Your task to perform on an android device: change notification settings in the gmail app Image 0: 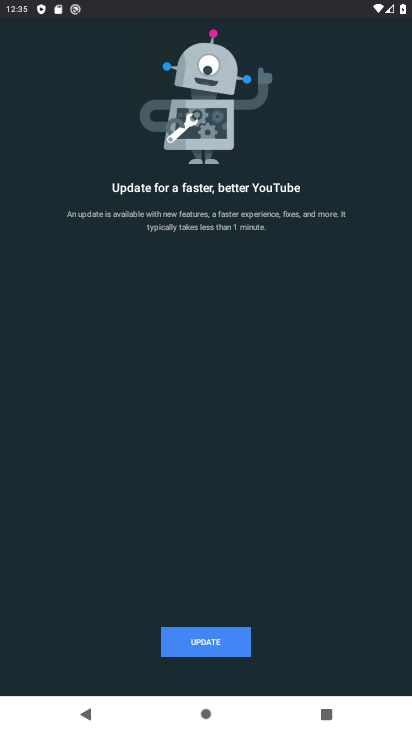
Step 0: press home button
Your task to perform on an android device: change notification settings in the gmail app Image 1: 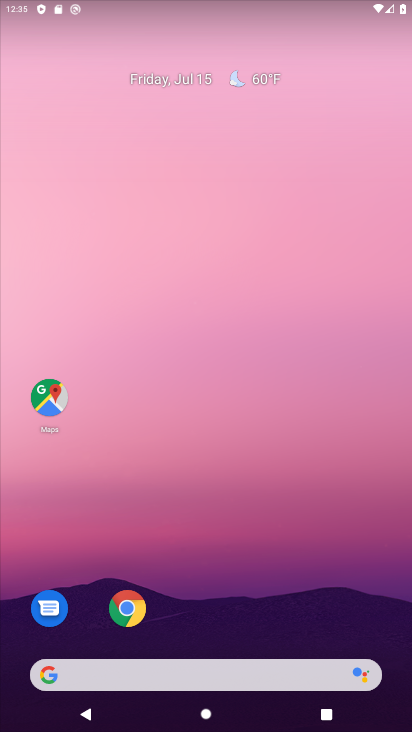
Step 1: drag from (252, 629) to (183, 67)
Your task to perform on an android device: change notification settings in the gmail app Image 2: 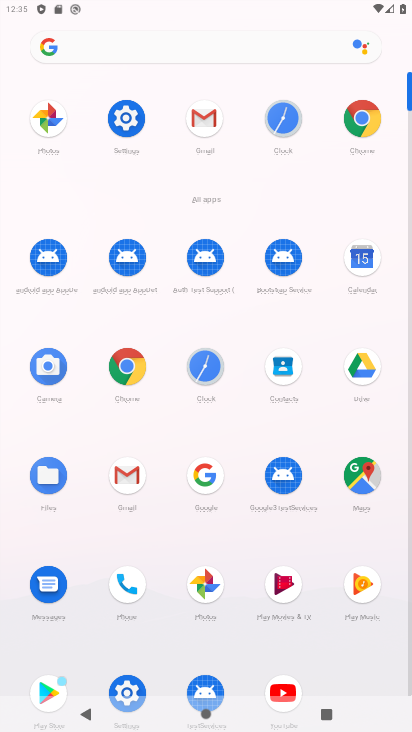
Step 2: click (134, 475)
Your task to perform on an android device: change notification settings in the gmail app Image 3: 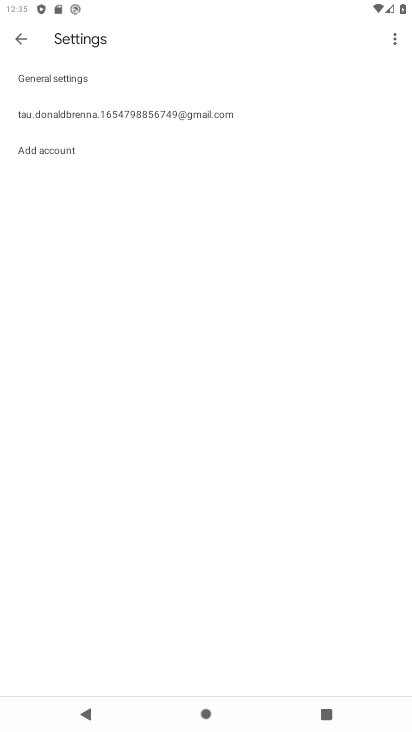
Step 3: press home button
Your task to perform on an android device: change notification settings in the gmail app Image 4: 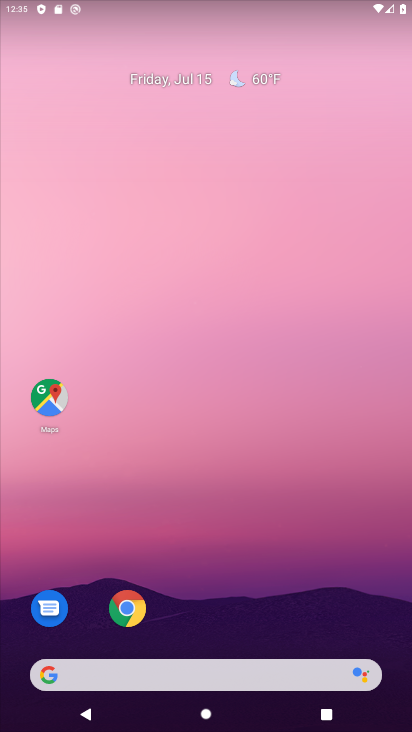
Step 4: drag from (171, 574) to (239, 202)
Your task to perform on an android device: change notification settings in the gmail app Image 5: 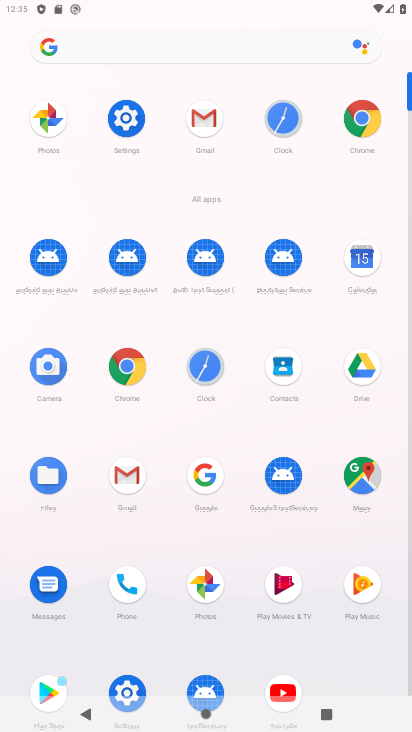
Step 5: click (134, 469)
Your task to perform on an android device: change notification settings in the gmail app Image 6: 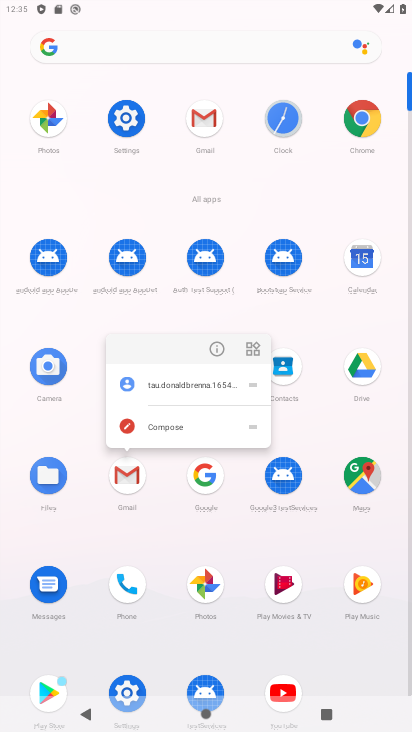
Step 6: click (215, 343)
Your task to perform on an android device: change notification settings in the gmail app Image 7: 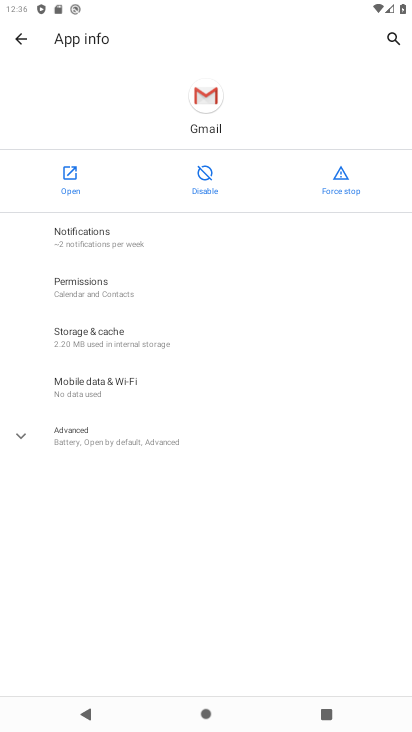
Step 7: click (109, 244)
Your task to perform on an android device: change notification settings in the gmail app Image 8: 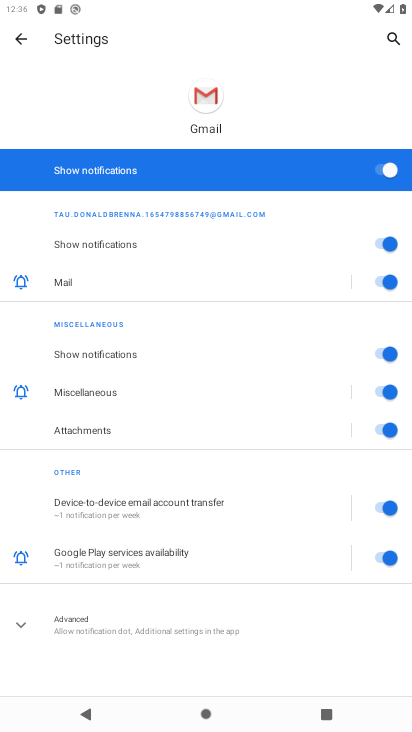
Step 8: click (388, 233)
Your task to perform on an android device: change notification settings in the gmail app Image 9: 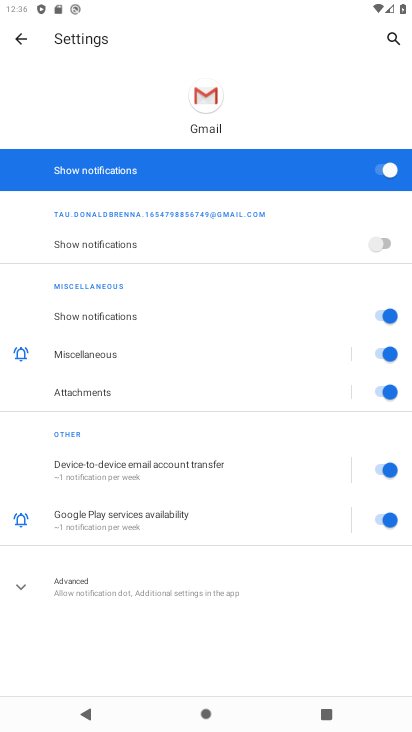
Step 9: task complete